Your task to perform on an android device: turn on improve location accuracy Image 0: 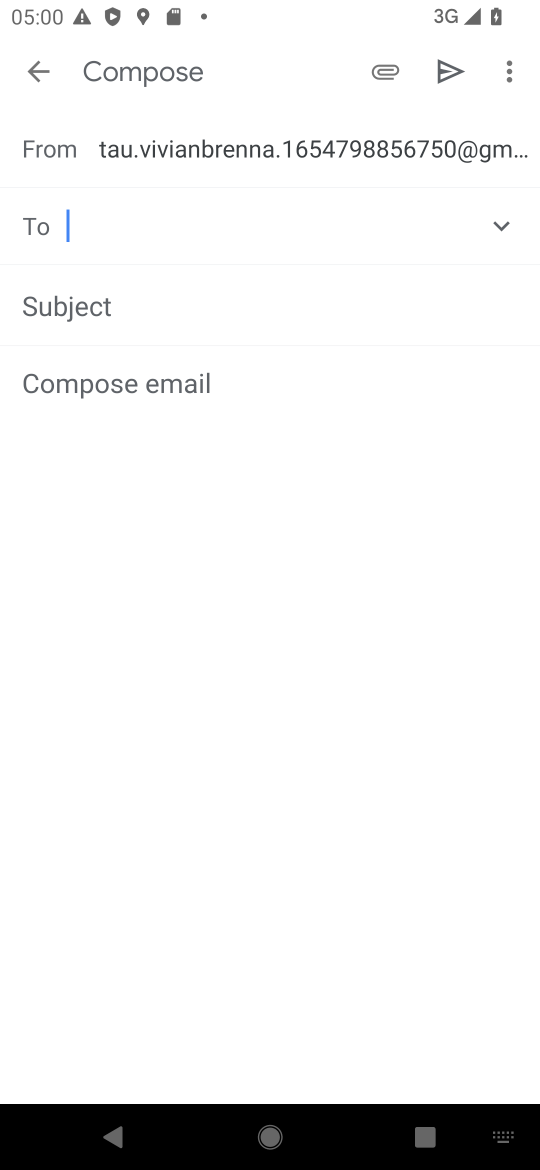
Step 0: press home button
Your task to perform on an android device: turn on improve location accuracy Image 1: 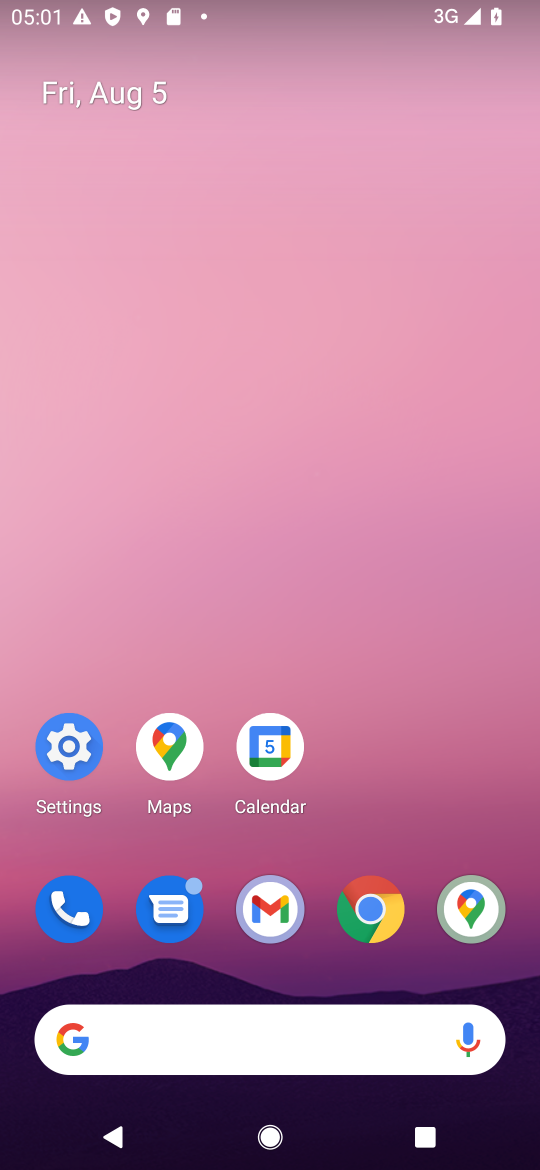
Step 1: click (65, 749)
Your task to perform on an android device: turn on improve location accuracy Image 2: 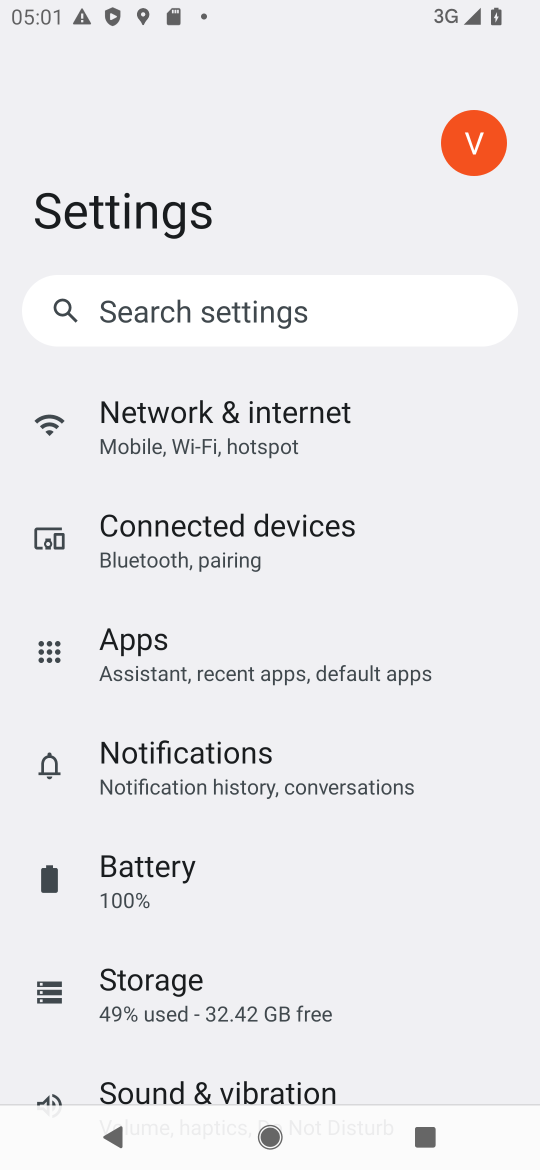
Step 2: drag from (382, 874) to (360, 401)
Your task to perform on an android device: turn on improve location accuracy Image 3: 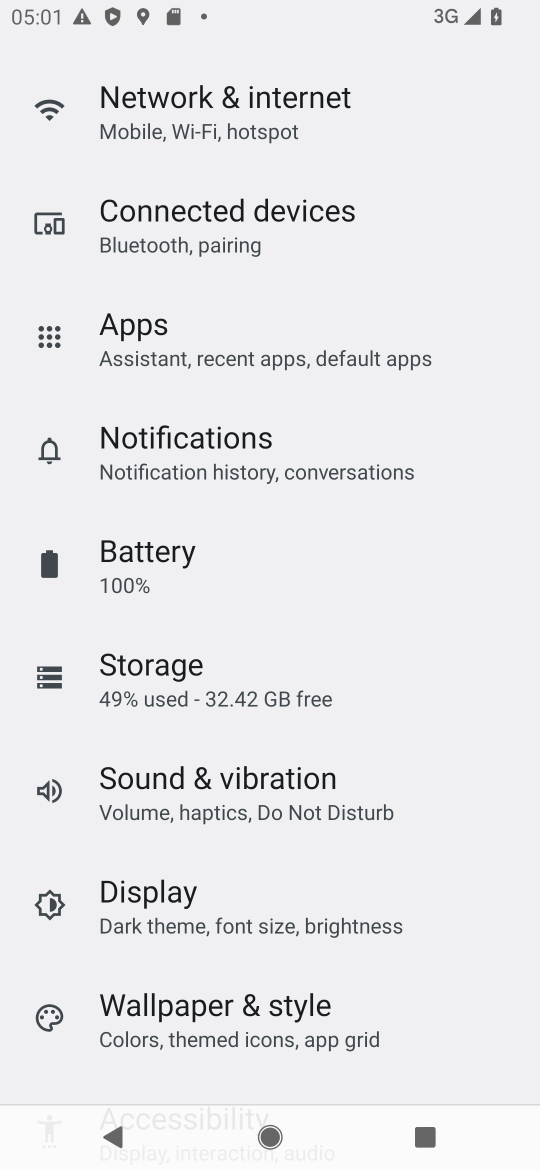
Step 3: drag from (389, 955) to (347, 428)
Your task to perform on an android device: turn on improve location accuracy Image 4: 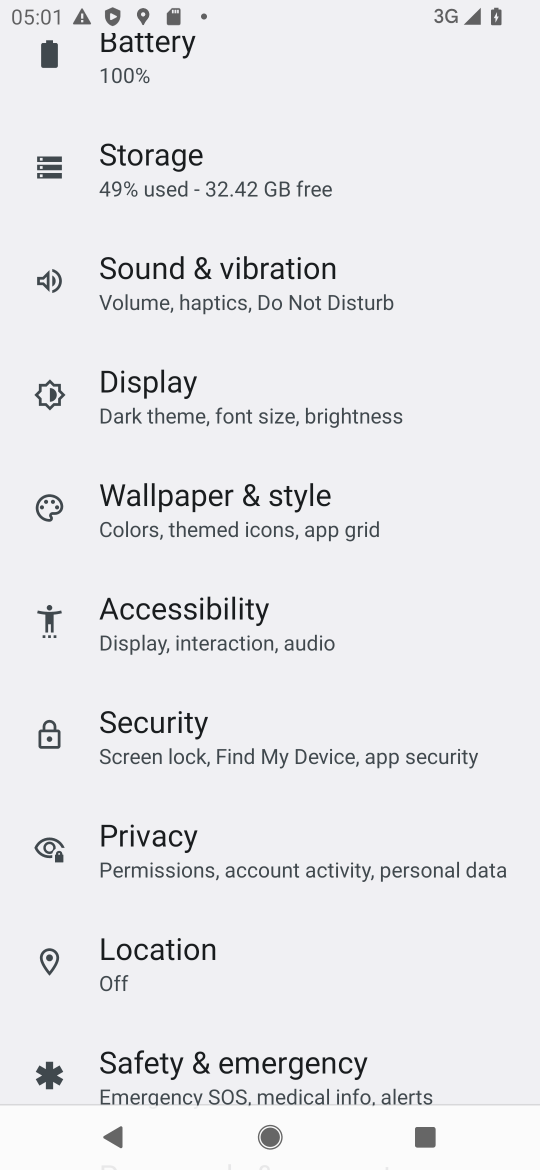
Step 4: click (162, 948)
Your task to perform on an android device: turn on improve location accuracy Image 5: 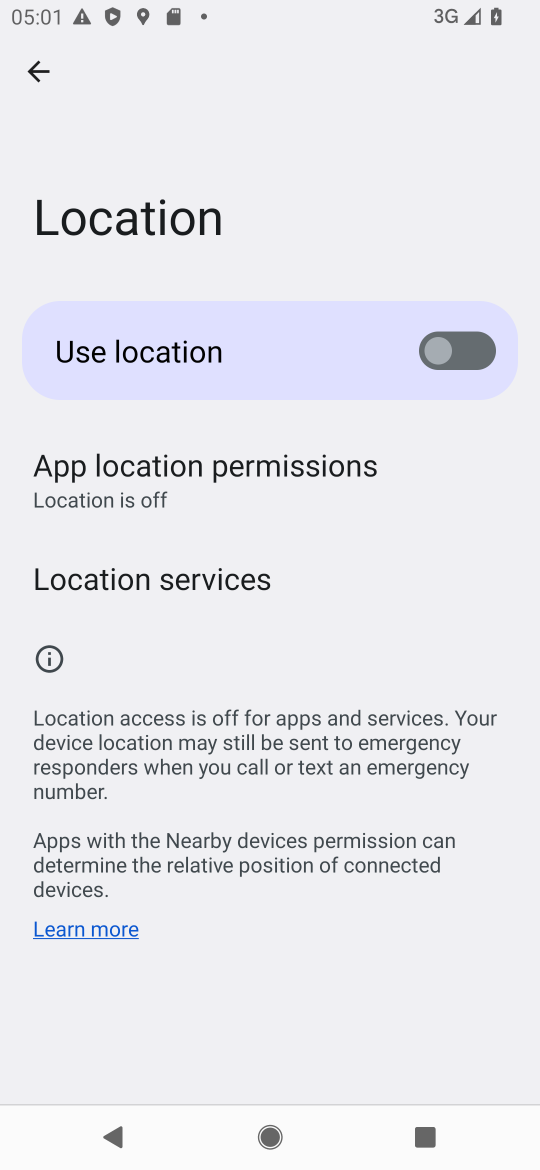
Step 5: click (133, 577)
Your task to perform on an android device: turn on improve location accuracy Image 6: 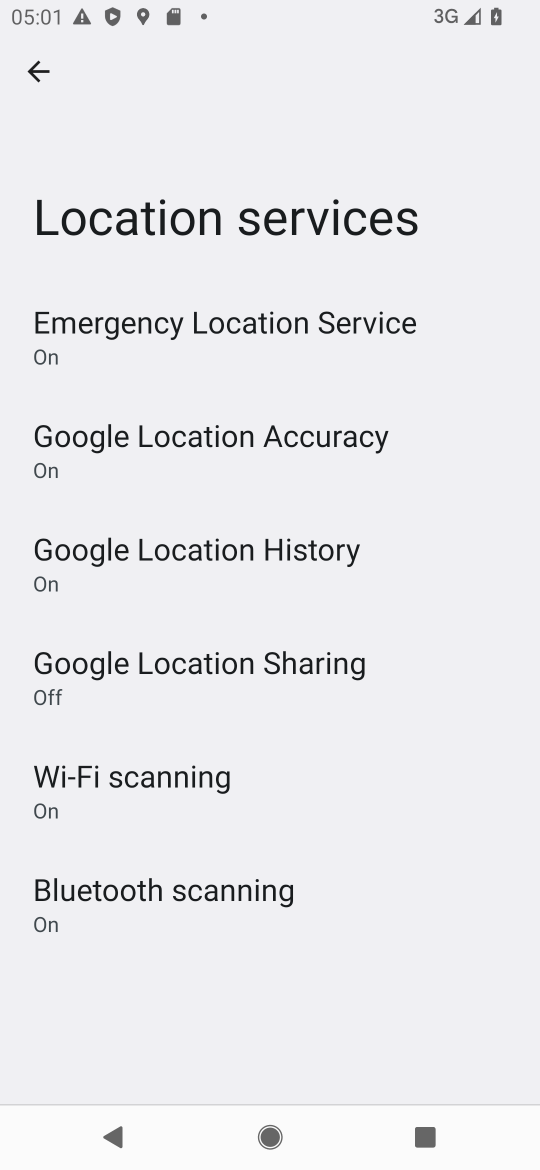
Step 6: click (239, 436)
Your task to perform on an android device: turn on improve location accuracy Image 7: 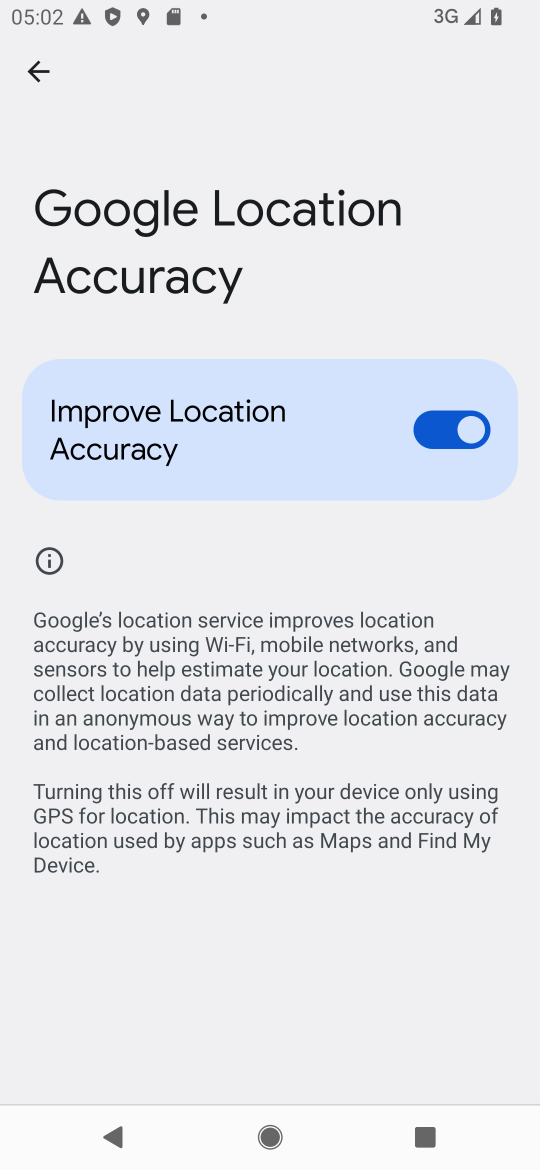
Step 7: task complete